Your task to perform on an android device: check out phone information Image 0: 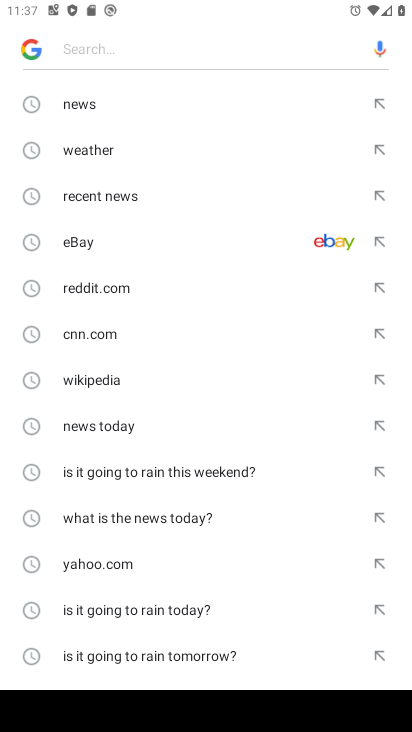
Step 0: press home button
Your task to perform on an android device: check out phone information Image 1: 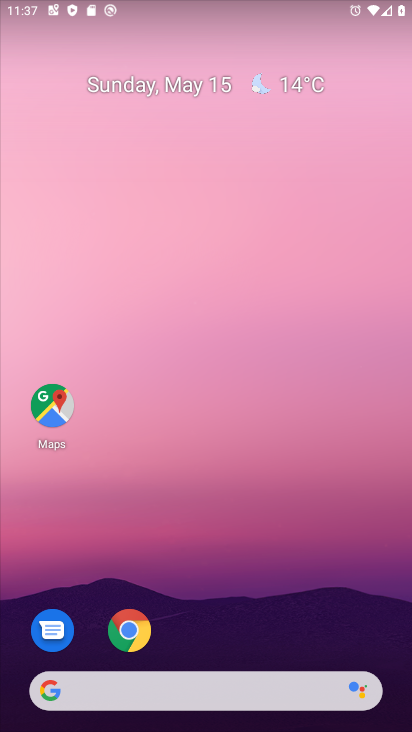
Step 1: drag from (206, 635) to (206, 184)
Your task to perform on an android device: check out phone information Image 2: 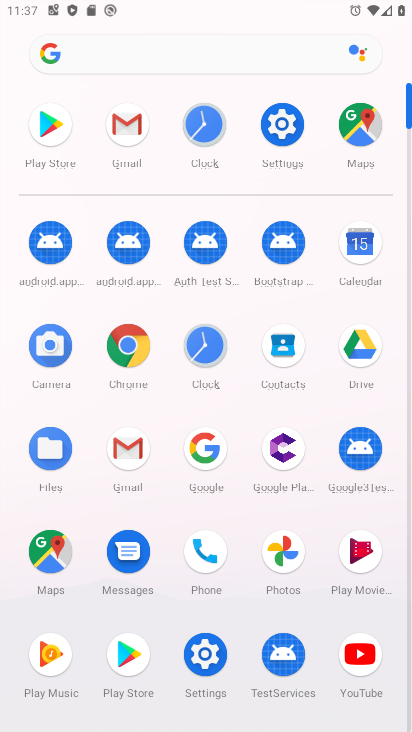
Step 2: click (281, 117)
Your task to perform on an android device: check out phone information Image 3: 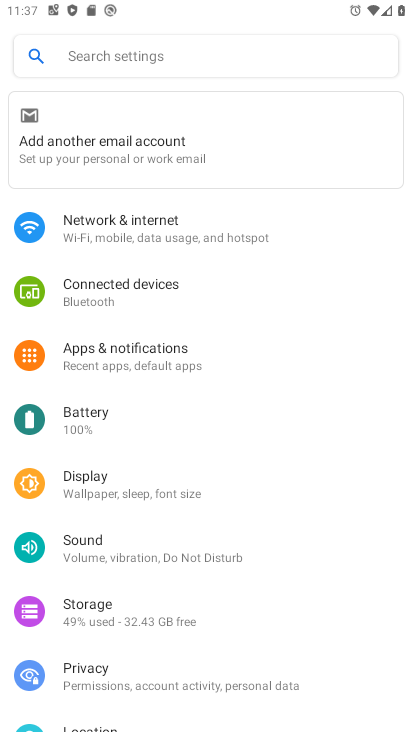
Step 3: drag from (100, 696) to (113, 238)
Your task to perform on an android device: check out phone information Image 4: 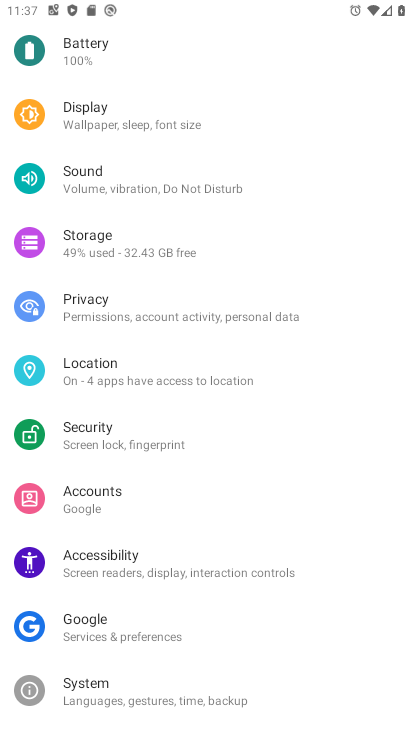
Step 4: drag from (126, 678) to (133, 331)
Your task to perform on an android device: check out phone information Image 5: 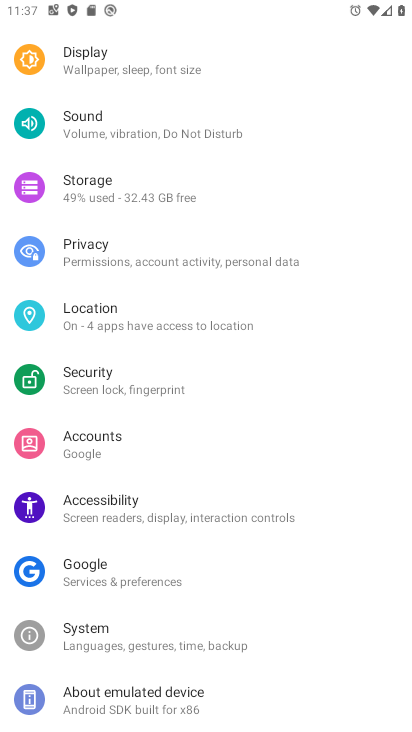
Step 5: click (116, 687)
Your task to perform on an android device: check out phone information Image 6: 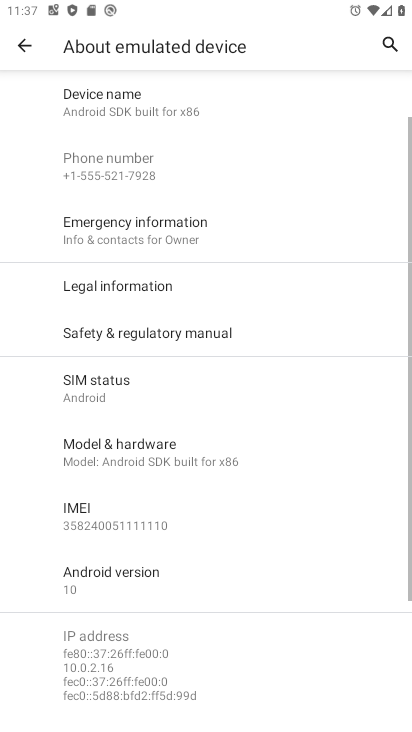
Step 6: task complete